Your task to perform on an android device: turn pop-ups off in chrome Image 0: 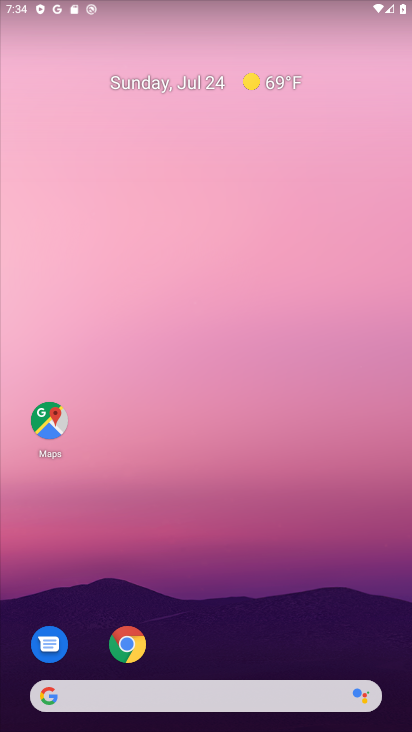
Step 0: click (122, 644)
Your task to perform on an android device: turn pop-ups off in chrome Image 1: 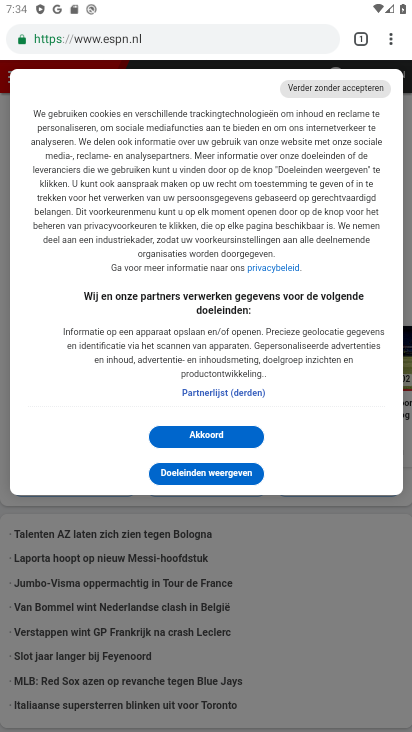
Step 1: click (388, 35)
Your task to perform on an android device: turn pop-ups off in chrome Image 2: 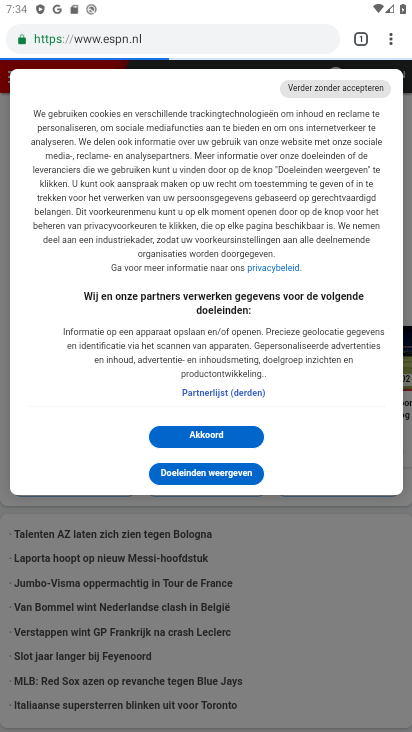
Step 2: click (387, 35)
Your task to perform on an android device: turn pop-ups off in chrome Image 3: 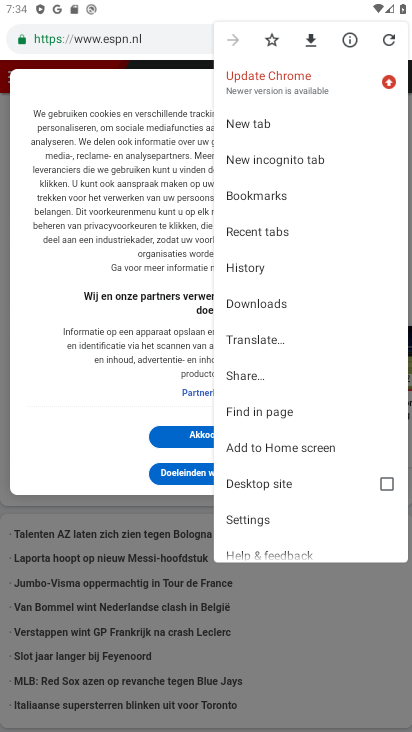
Step 3: click (252, 510)
Your task to perform on an android device: turn pop-ups off in chrome Image 4: 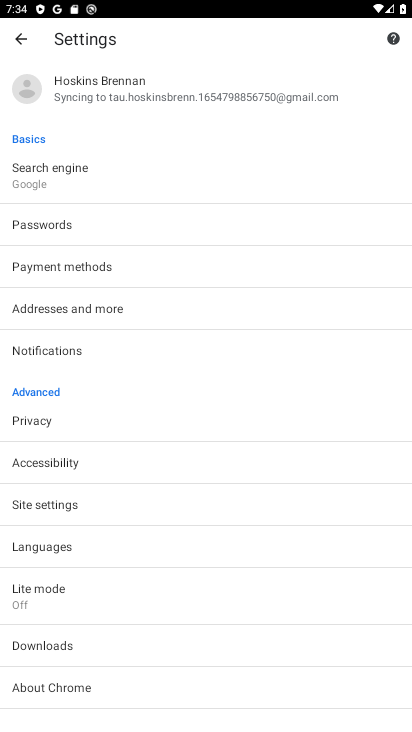
Step 4: click (60, 495)
Your task to perform on an android device: turn pop-ups off in chrome Image 5: 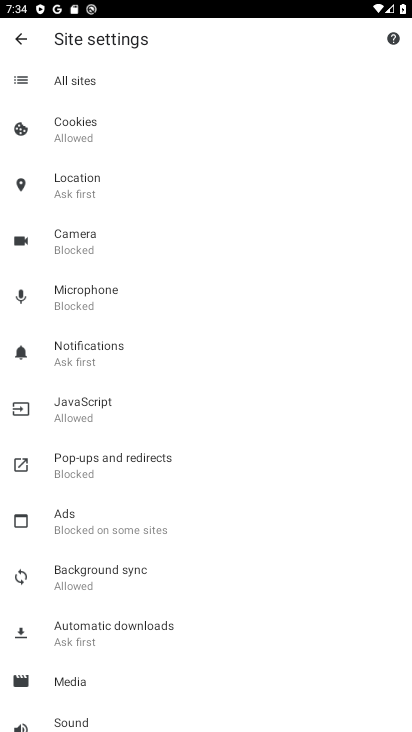
Step 5: click (86, 444)
Your task to perform on an android device: turn pop-ups off in chrome Image 6: 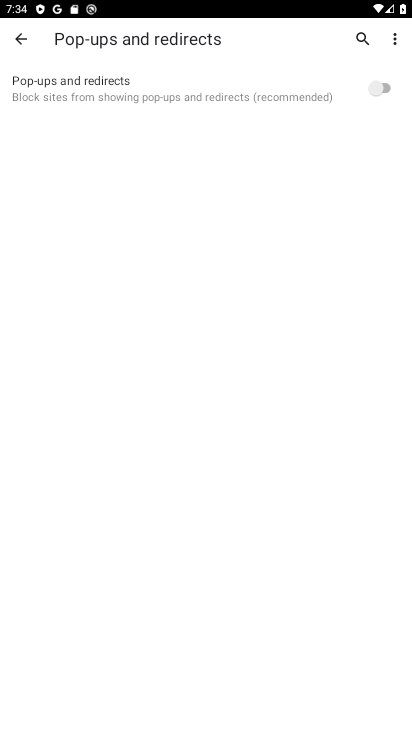
Step 6: task complete